Your task to perform on an android device: open app "Move to iOS" (install if not already installed) Image 0: 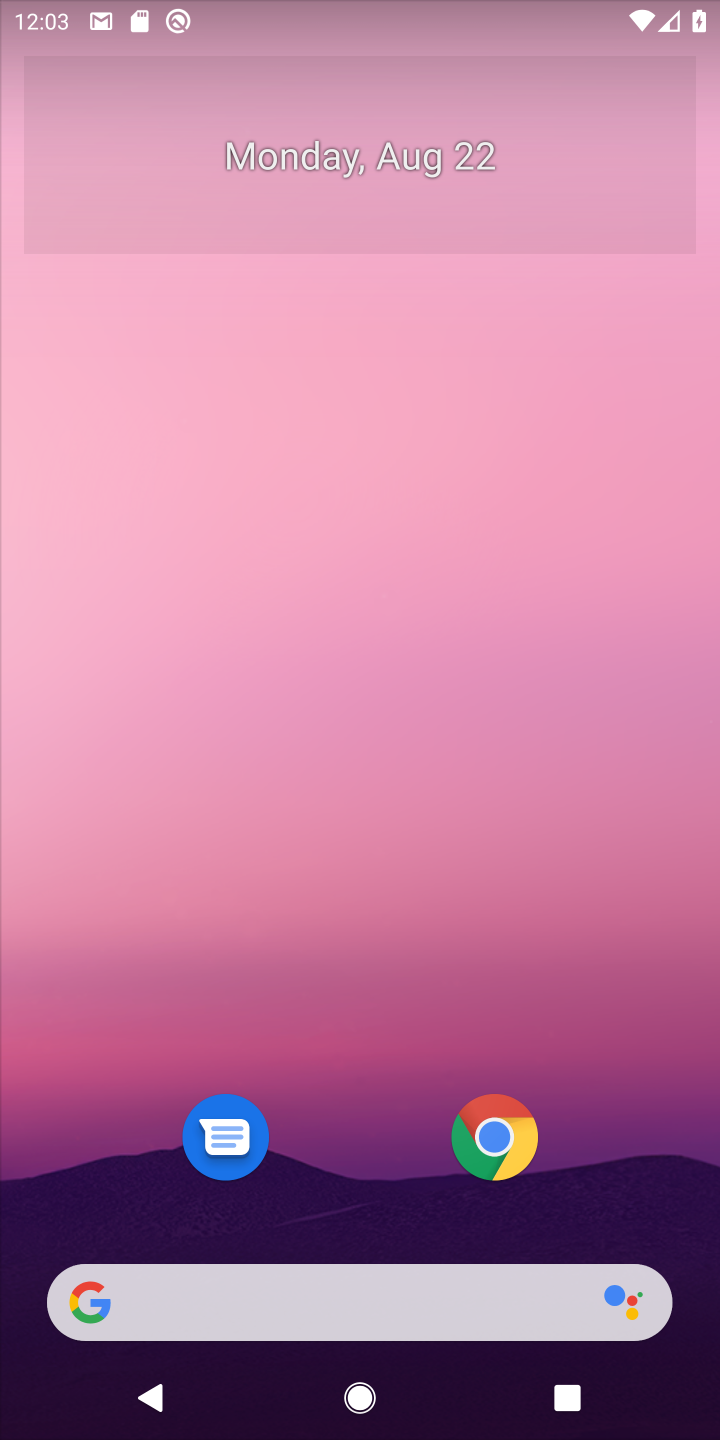
Step 0: drag from (630, 1191) to (608, 136)
Your task to perform on an android device: open app "Move to iOS" (install if not already installed) Image 1: 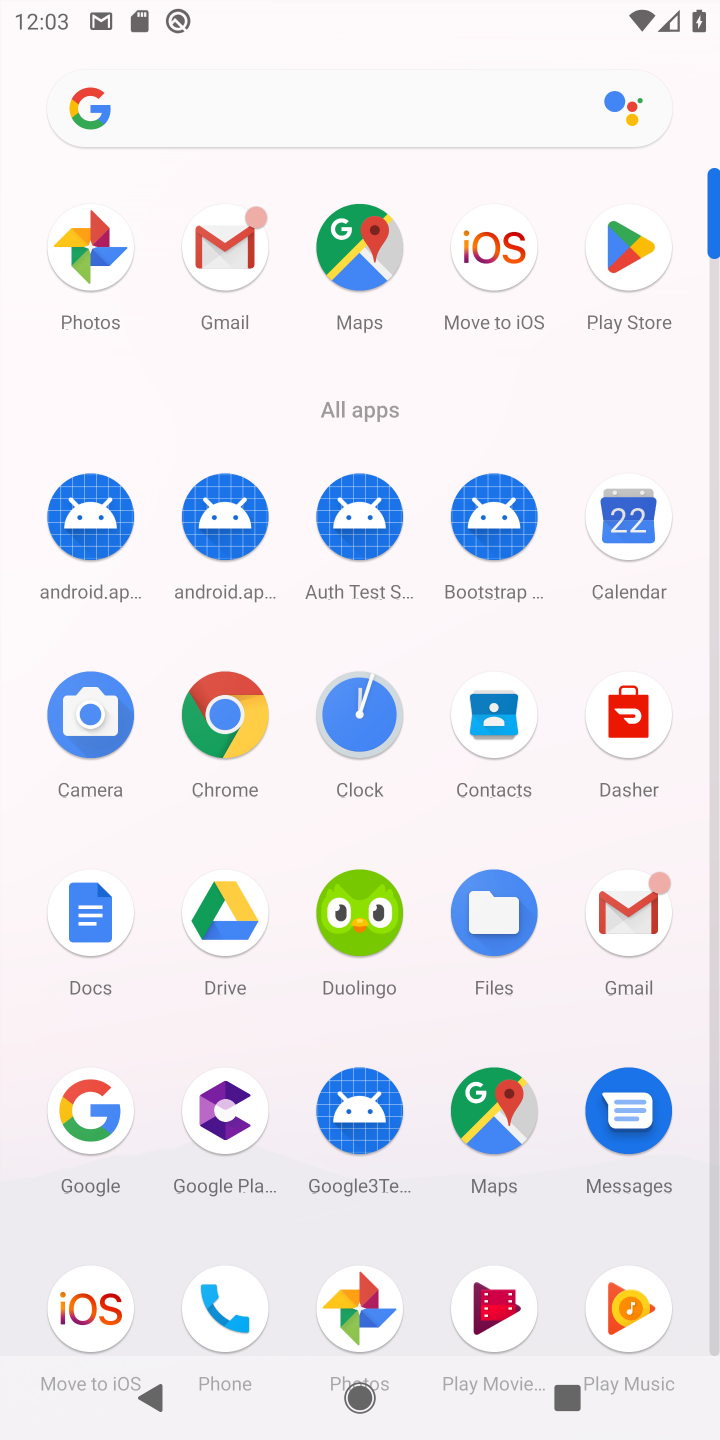
Step 1: drag from (556, 1215) to (565, 575)
Your task to perform on an android device: open app "Move to iOS" (install if not already installed) Image 2: 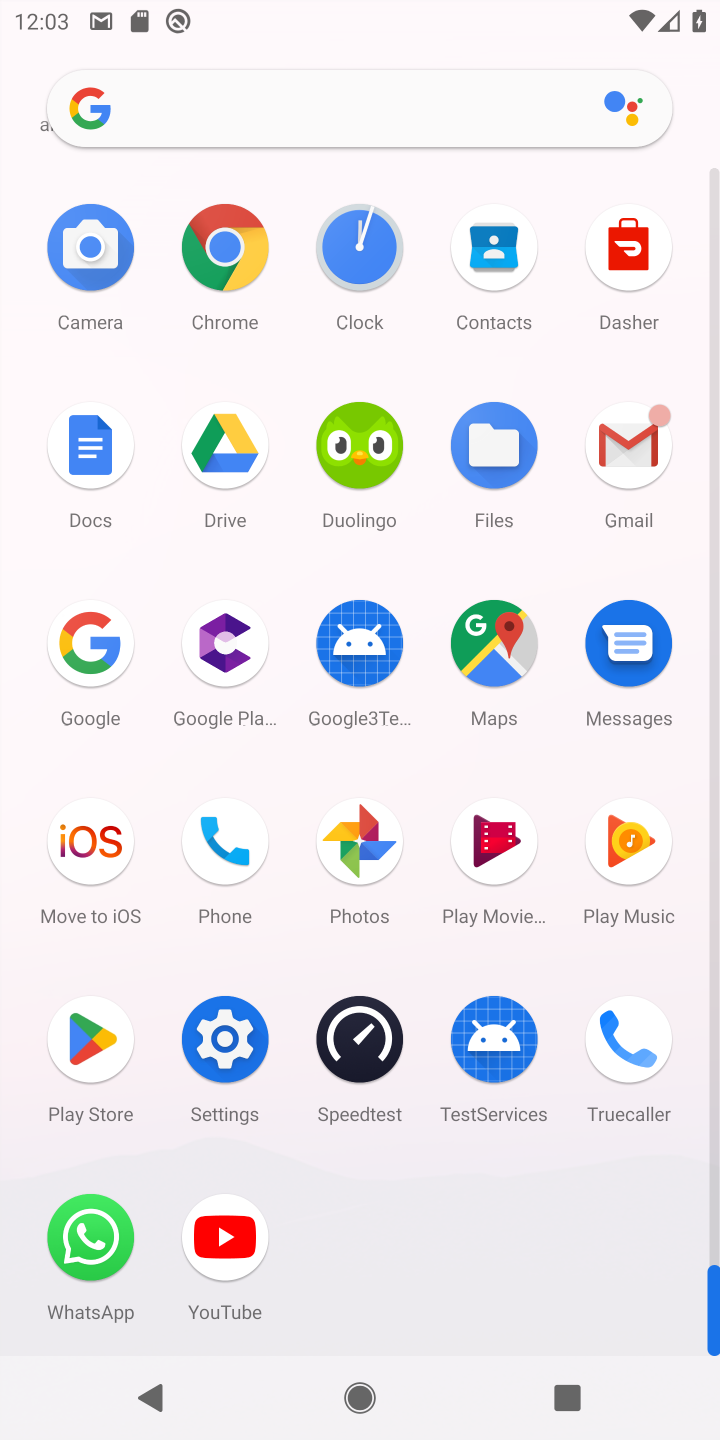
Step 2: click (97, 1037)
Your task to perform on an android device: open app "Move to iOS" (install if not already installed) Image 3: 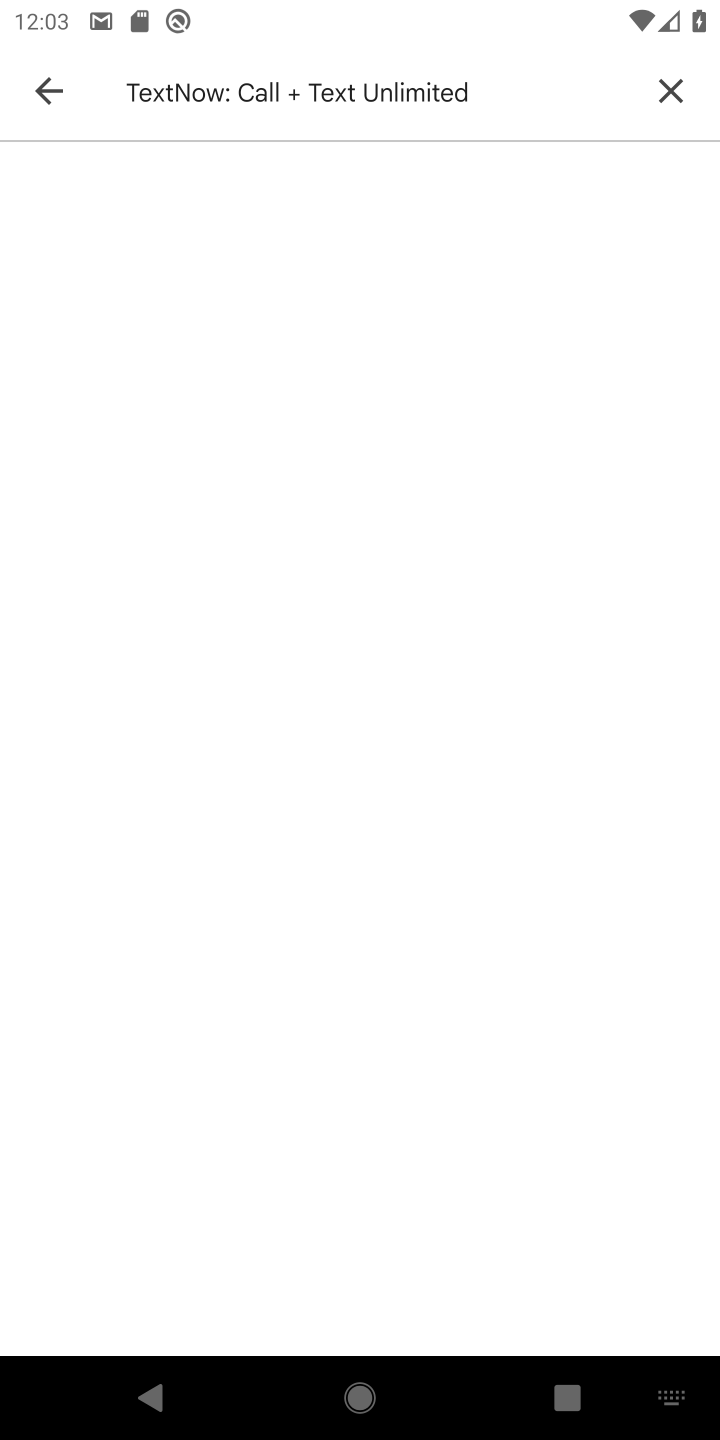
Step 3: click (674, 75)
Your task to perform on an android device: open app "Move to iOS" (install if not already installed) Image 4: 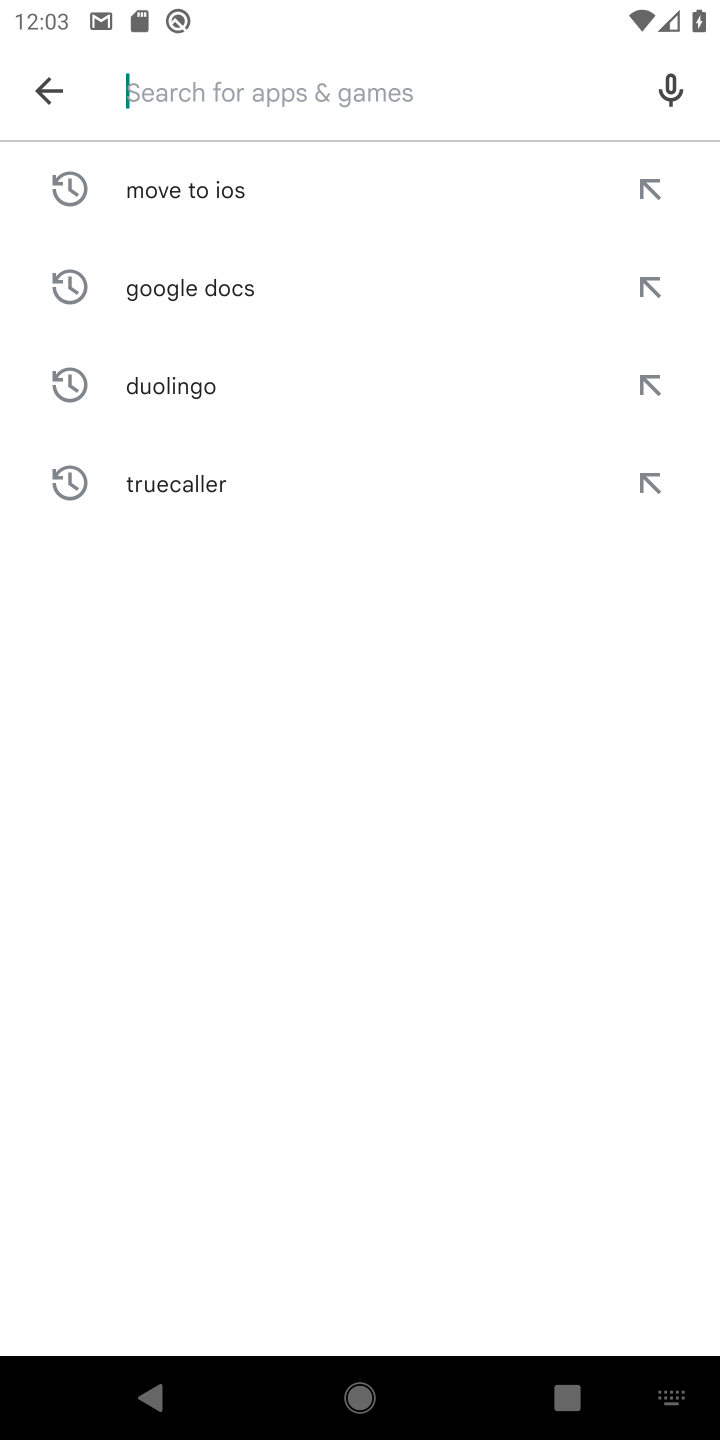
Step 4: type "Move to iOS"
Your task to perform on an android device: open app "Move to iOS" (install if not already installed) Image 5: 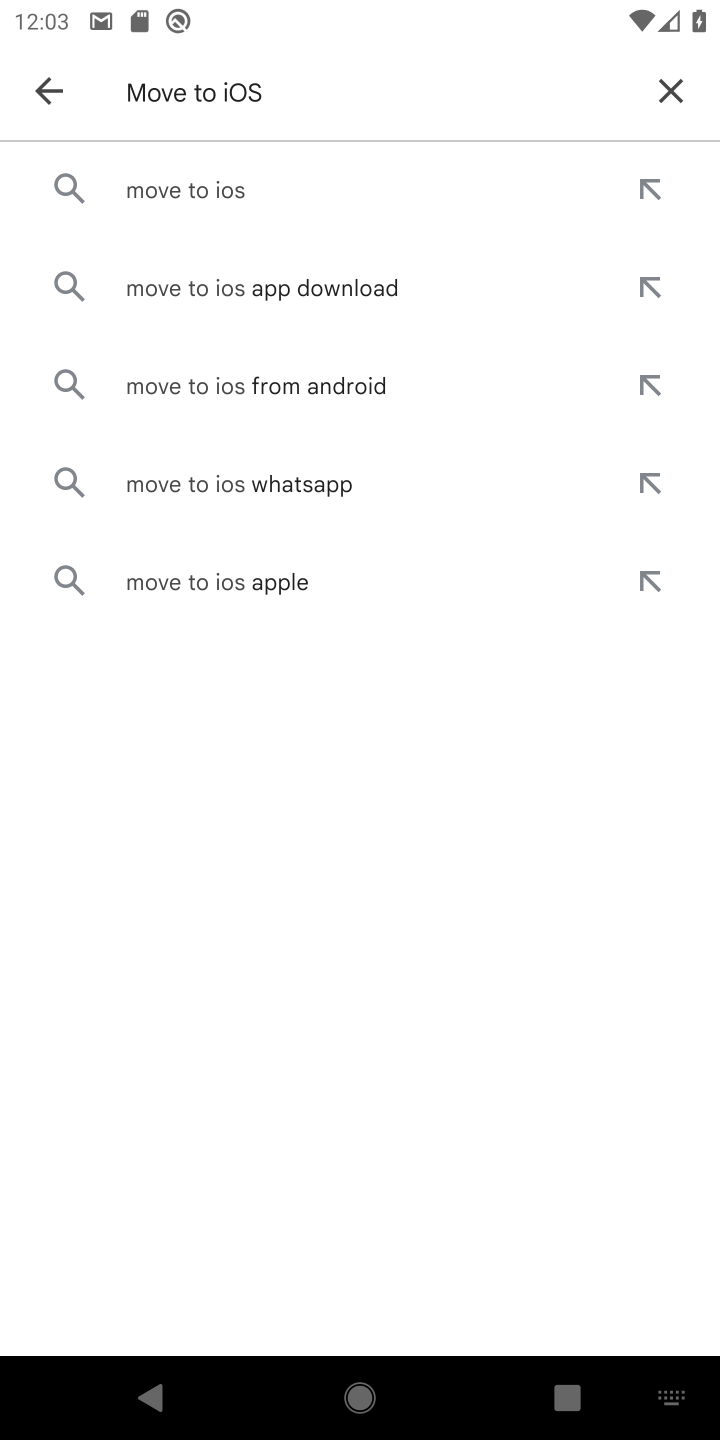
Step 5: click (181, 189)
Your task to perform on an android device: open app "Move to iOS" (install if not already installed) Image 6: 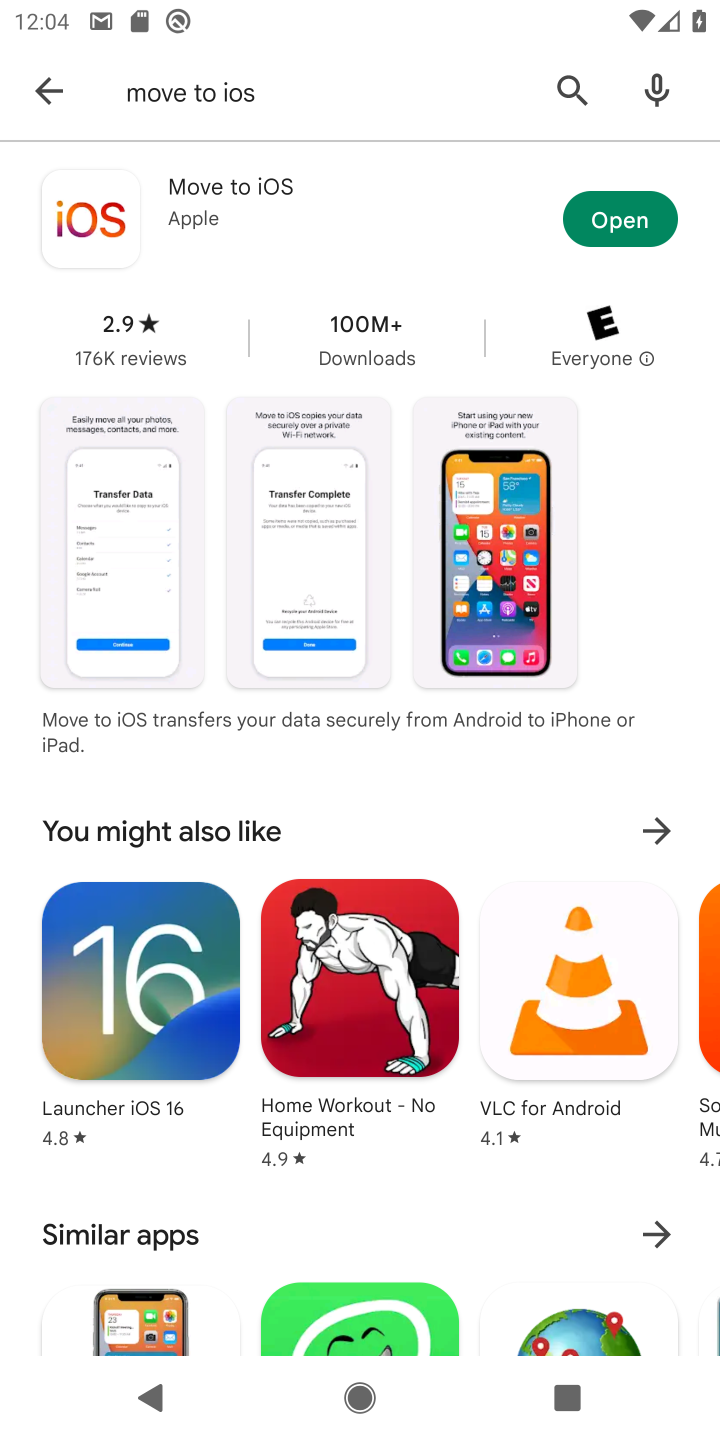
Step 6: click (618, 218)
Your task to perform on an android device: open app "Move to iOS" (install if not already installed) Image 7: 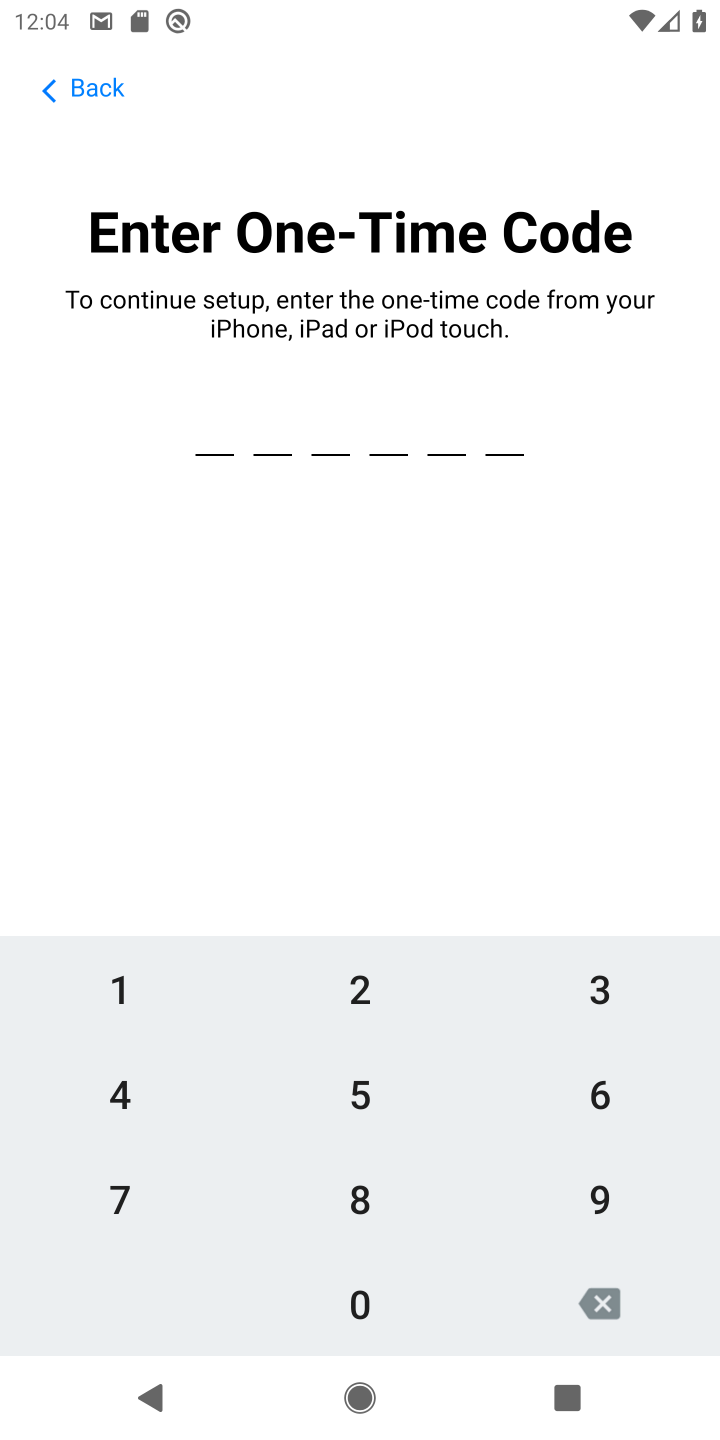
Step 7: task complete